Your task to perform on an android device: Open Android settings Image 0: 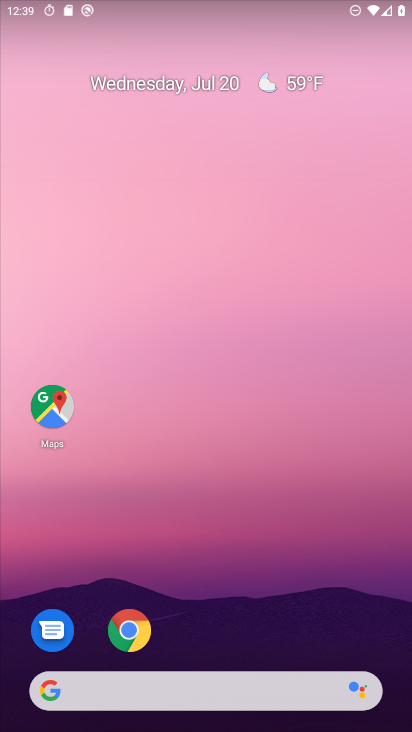
Step 0: drag from (274, 624) to (201, 21)
Your task to perform on an android device: Open Android settings Image 1: 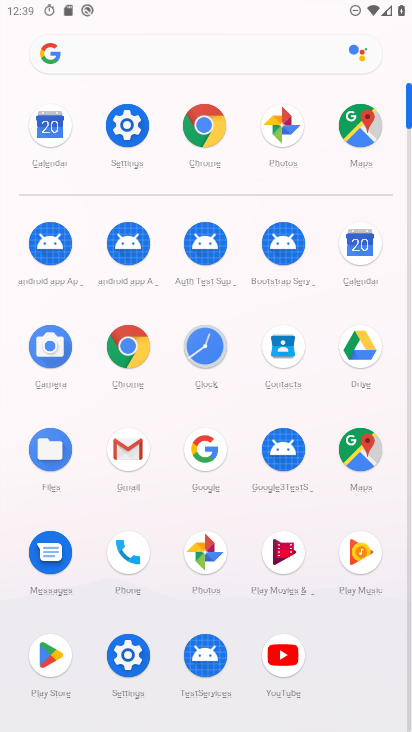
Step 1: click (129, 126)
Your task to perform on an android device: Open Android settings Image 2: 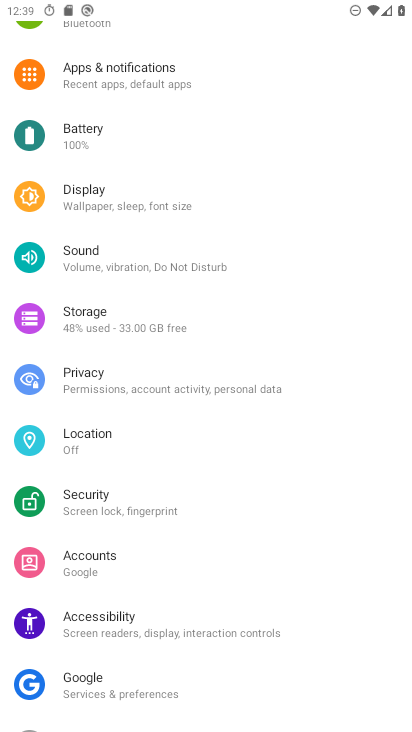
Step 2: drag from (254, 276) to (277, 720)
Your task to perform on an android device: Open Android settings Image 3: 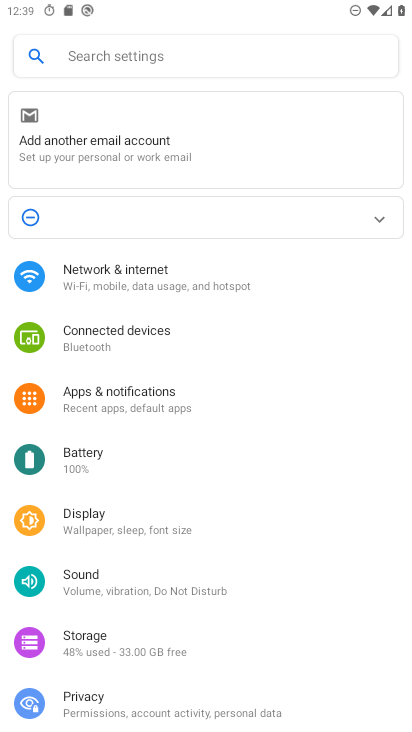
Step 3: drag from (213, 711) to (209, 457)
Your task to perform on an android device: Open Android settings Image 4: 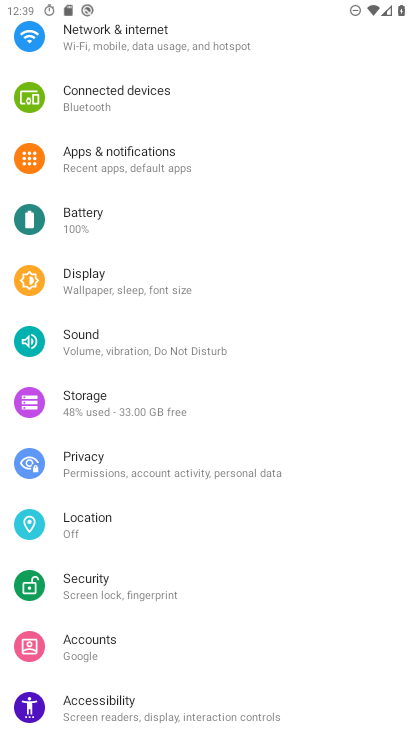
Step 4: drag from (304, 566) to (367, 102)
Your task to perform on an android device: Open Android settings Image 5: 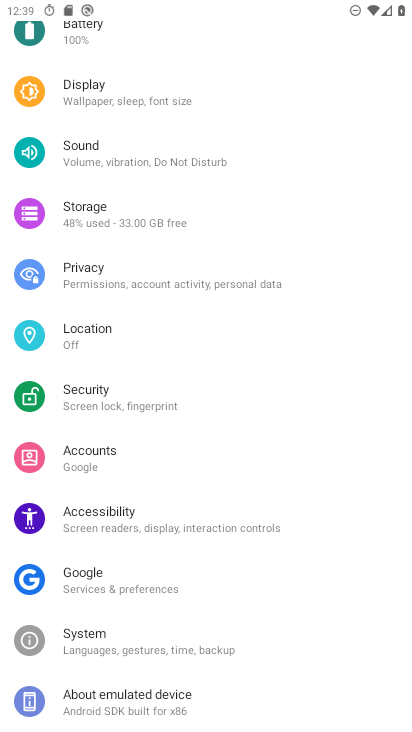
Step 5: click (186, 716)
Your task to perform on an android device: Open Android settings Image 6: 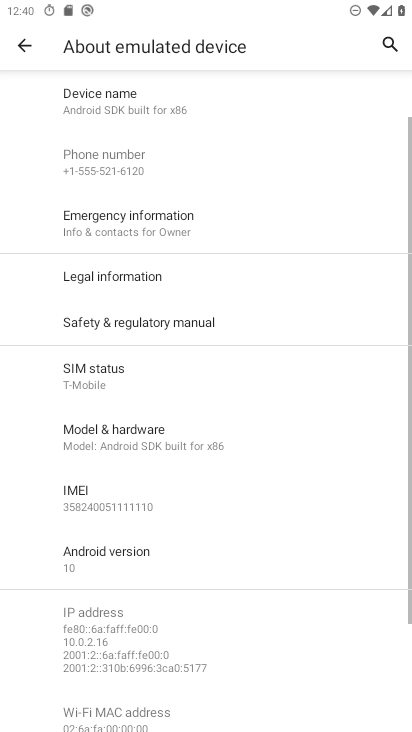
Step 6: task complete